Your task to perform on an android device: turn pop-ups off in chrome Image 0: 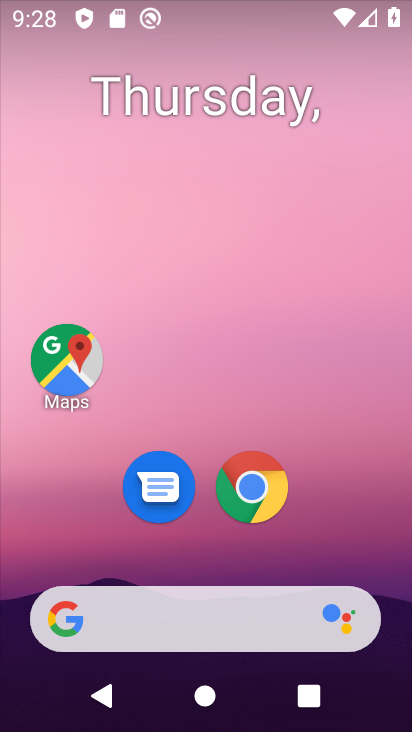
Step 0: click (261, 501)
Your task to perform on an android device: turn pop-ups off in chrome Image 1: 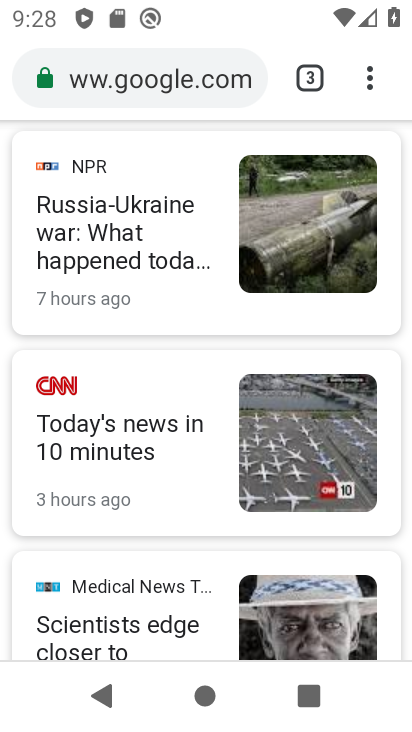
Step 1: click (372, 86)
Your task to perform on an android device: turn pop-ups off in chrome Image 2: 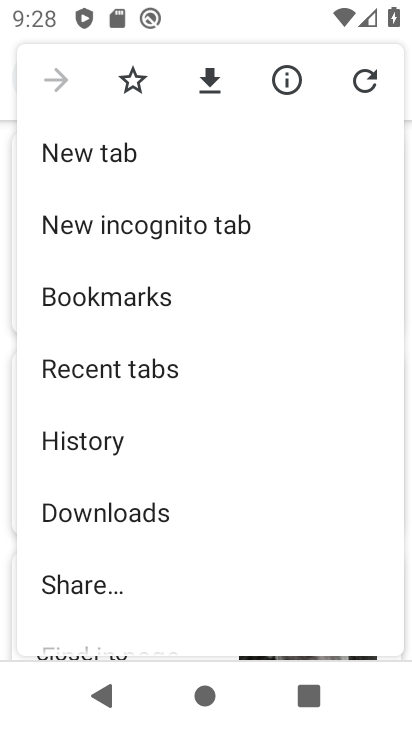
Step 2: drag from (181, 567) to (206, 77)
Your task to perform on an android device: turn pop-ups off in chrome Image 3: 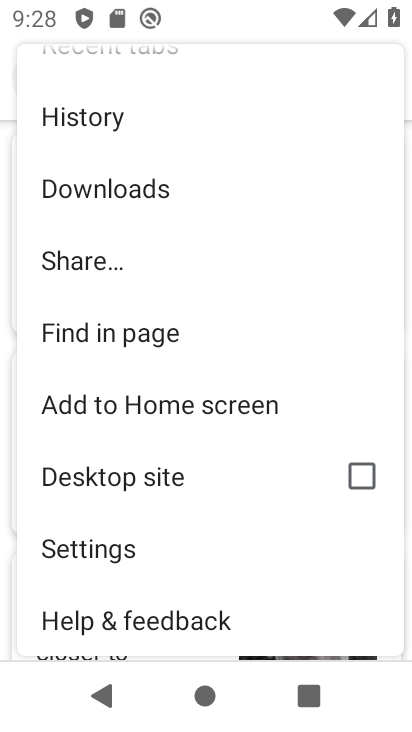
Step 3: click (99, 556)
Your task to perform on an android device: turn pop-ups off in chrome Image 4: 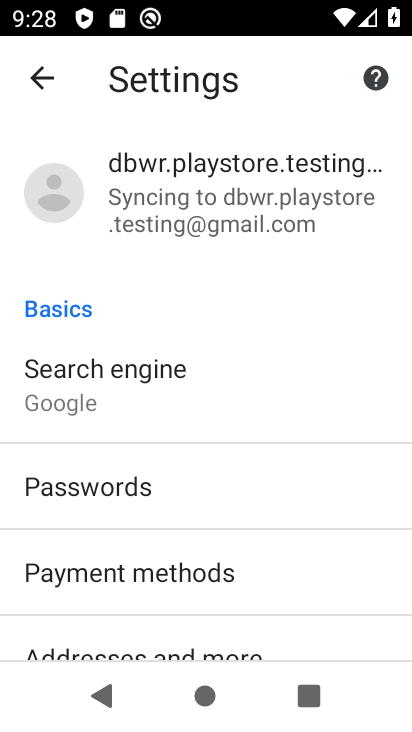
Step 4: drag from (99, 556) to (139, 228)
Your task to perform on an android device: turn pop-ups off in chrome Image 5: 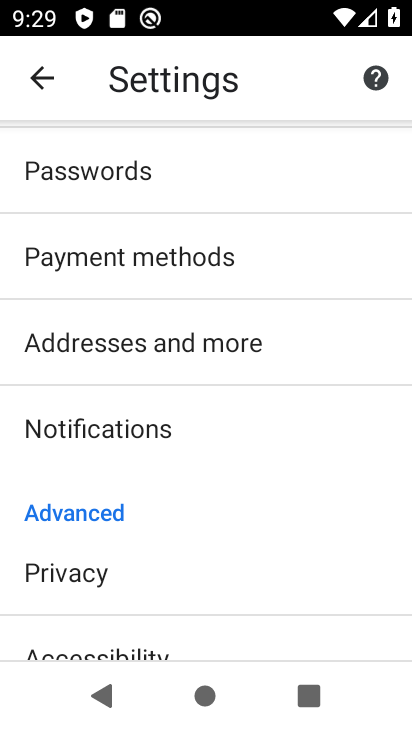
Step 5: drag from (224, 581) to (197, 305)
Your task to perform on an android device: turn pop-ups off in chrome Image 6: 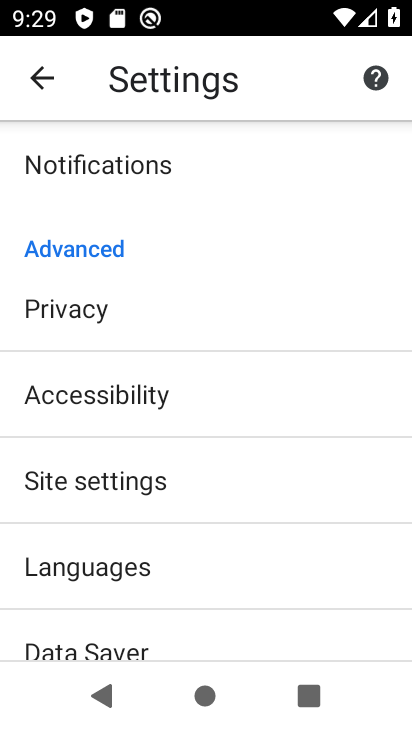
Step 6: click (99, 489)
Your task to perform on an android device: turn pop-ups off in chrome Image 7: 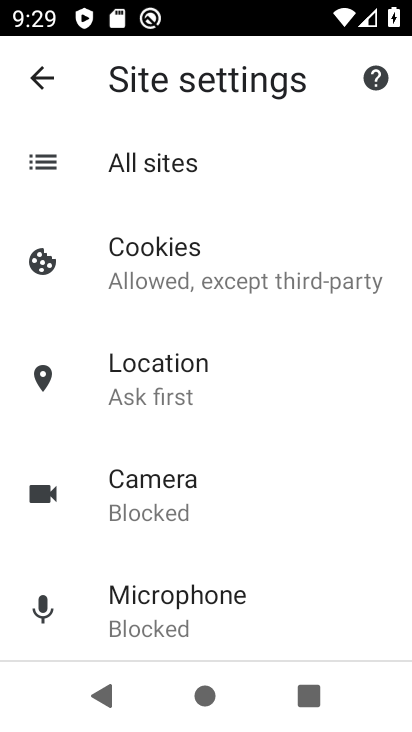
Step 7: drag from (231, 594) to (215, 255)
Your task to perform on an android device: turn pop-ups off in chrome Image 8: 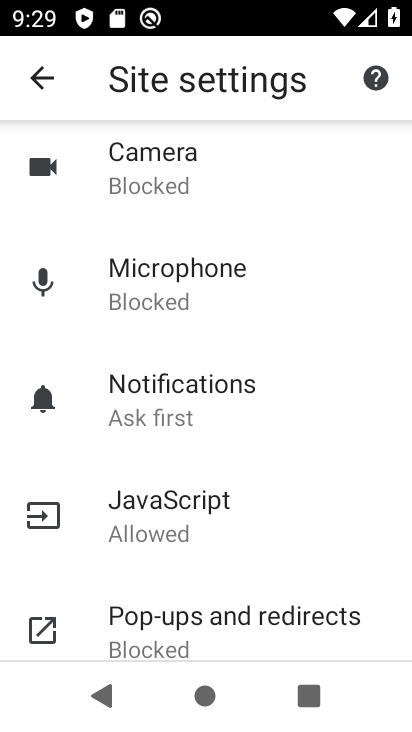
Step 8: click (162, 625)
Your task to perform on an android device: turn pop-ups off in chrome Image 9: 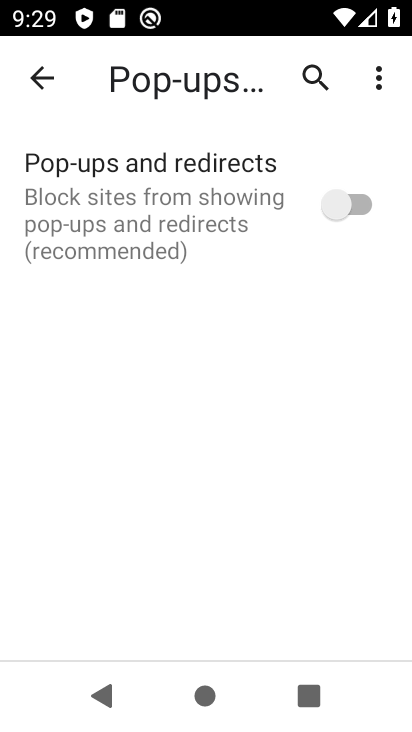
Step 9: task complete